Your task to perform on an android device: all mails in gmail Image 0: 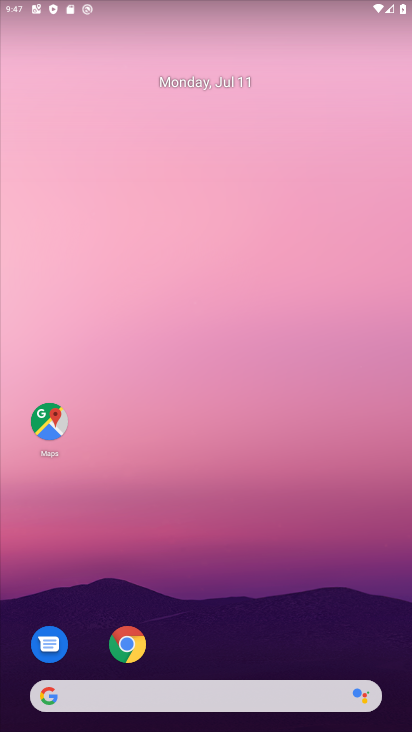
Step 0: drag from (188, 624) to (263, 170)
Your task to perform on an android device: all mails in gmail Image 1: 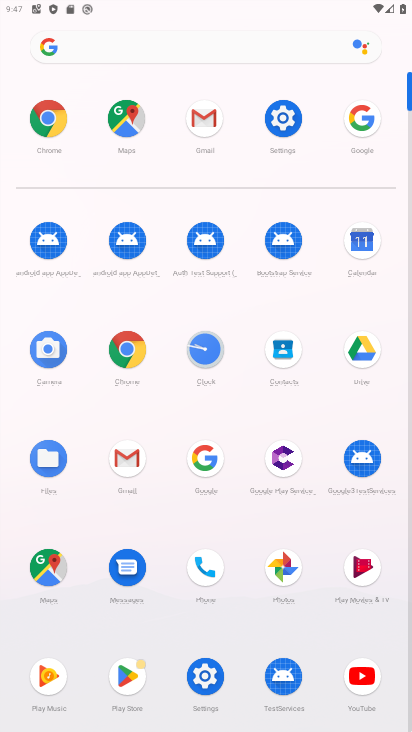
Step 1: click (205, 120)
Your task to perform on an android device: all mails in gmail Image 2: 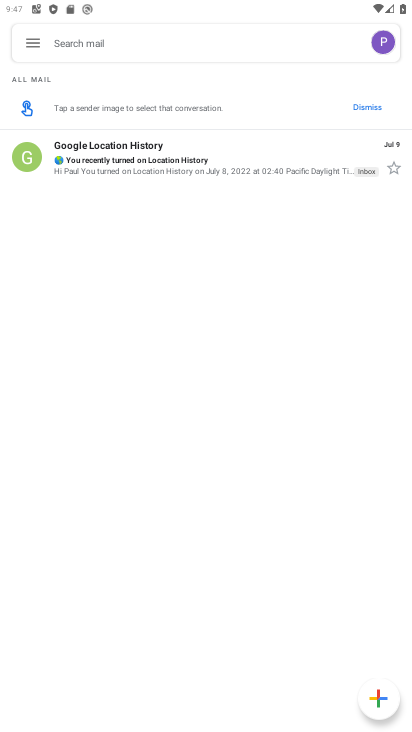
Step 2: click (39, 39)
Your task to perform on an android device: all mails in gmail Image 3: 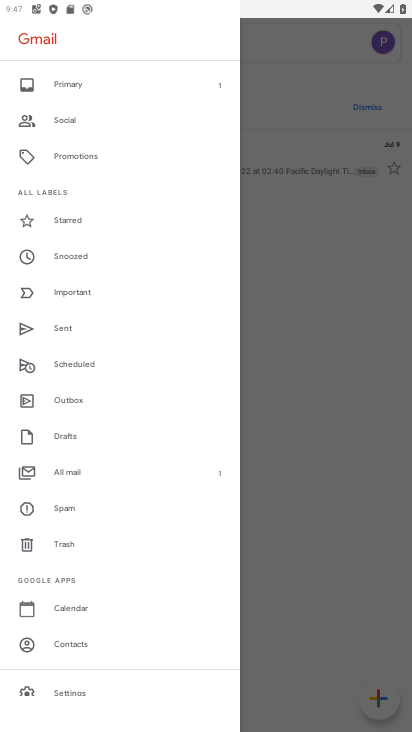
Step 3: click (64, 470)
Your task to perform on an android device: all mails in gmail Image 4: 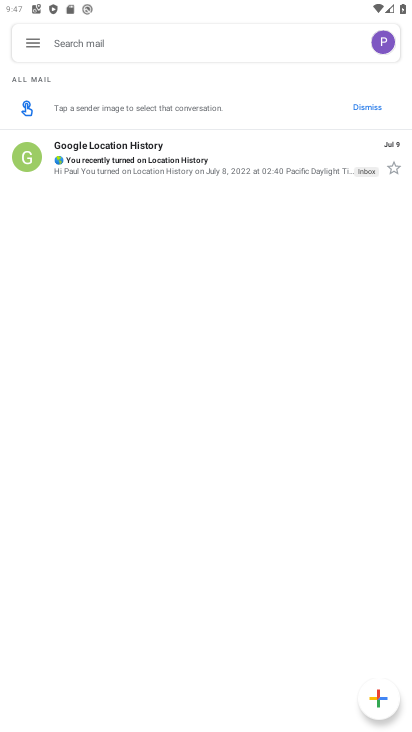
Step 4: task complete